Your task to perform on an android device: Go to settings Image 0: 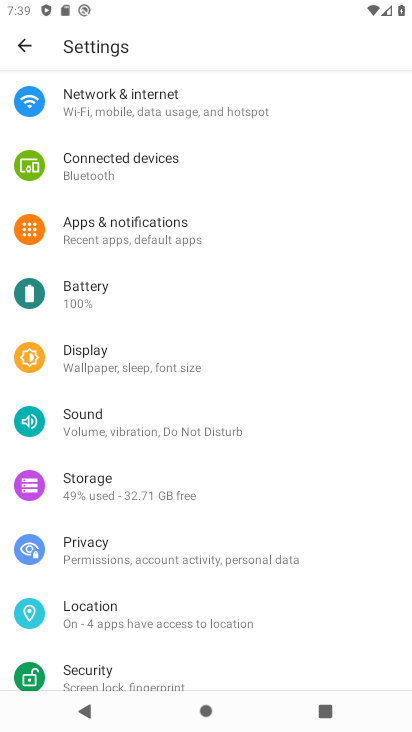
Step 0: task complete